Your task to perform on an android device: turn off javascript in the chrome app Image 0: 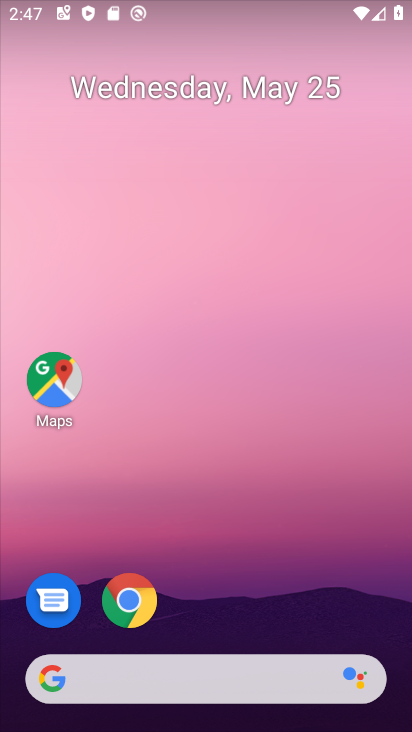
Step 0: click (129, 596)
Your task to perform on an android device: turn off javascript in the chrome app Image 1: 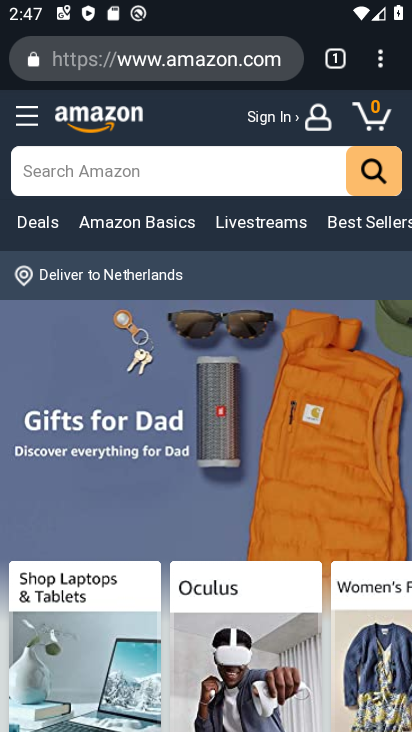
Step 1: click (382, 62)
Your task to perform on an android device: turn off javascript in the chrome app Image 2: 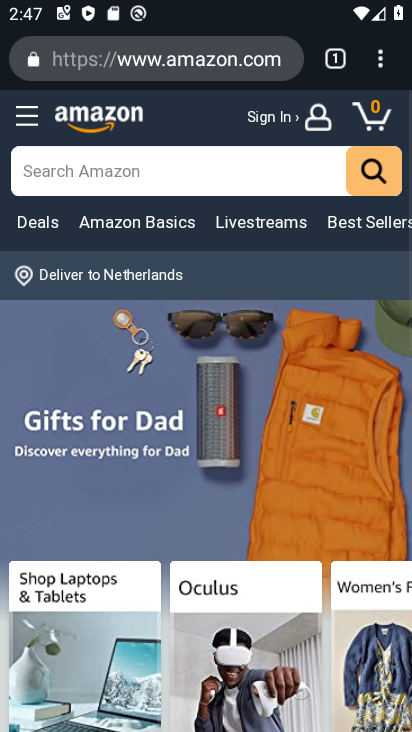
Step 2: click (369, 70)
Your task to perform on an android device: turn off javascript in the chrome app Image 3: 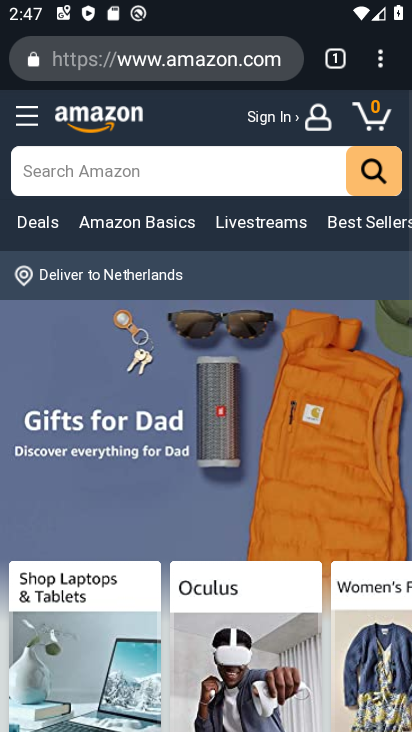
Step 3: click (386, 57)
Your task to perform on an android device: turn off javascript in the chrome app Image 4: 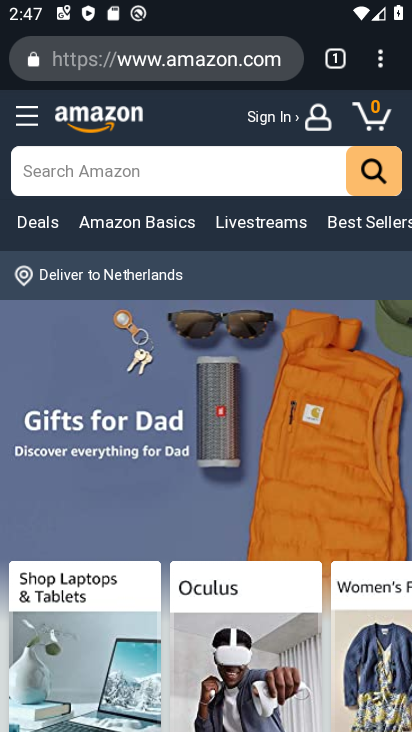
Step 4: click (385, 58)
Your task to perform on an android device: turn off javascript in the chrome app Image 5: 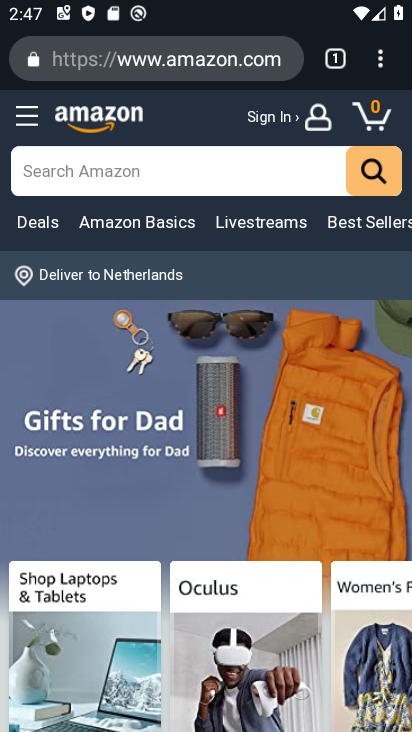
Step 5: click (383, 58)
Your task to perform on an android device: turn off javascript in the chrome app Image 6: 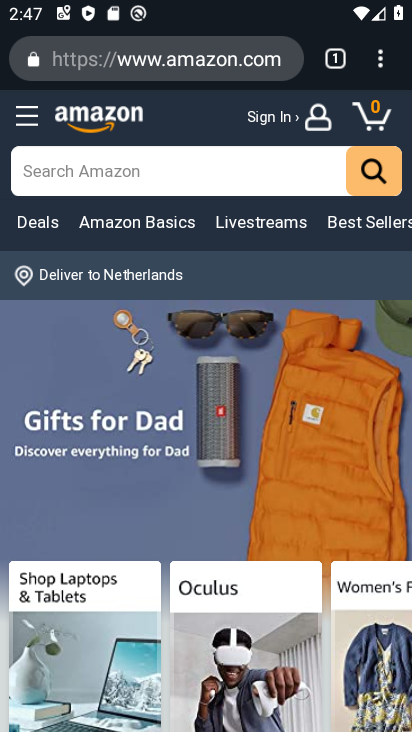
Step 6: click (385, 67)
Your task to perform on an android device: turn off javascript in the chrome app Image 7: 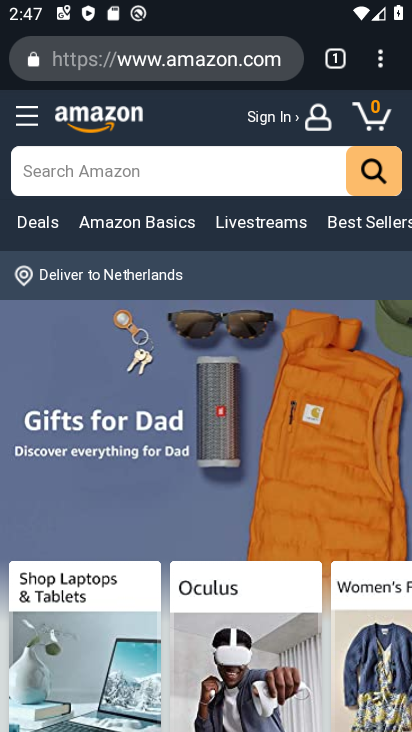
Step 7: click (389, 49)
Your task to perform on an android device: turn off javascript in the chrome app Image 8: 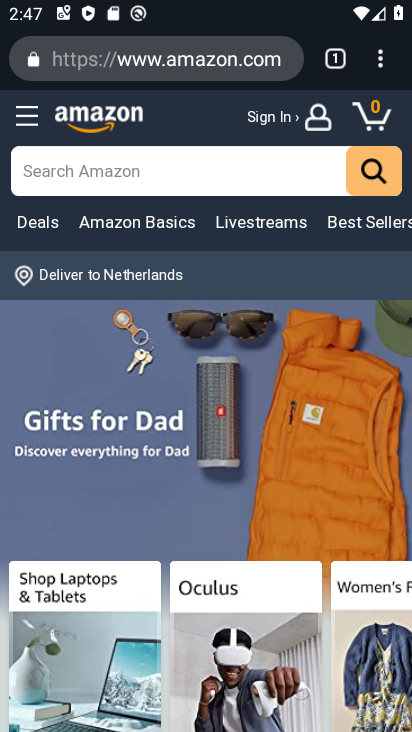
Step 8: click (391, 59)
Your task to perform on an android device: turn off javascript in the chrome app Image 9: 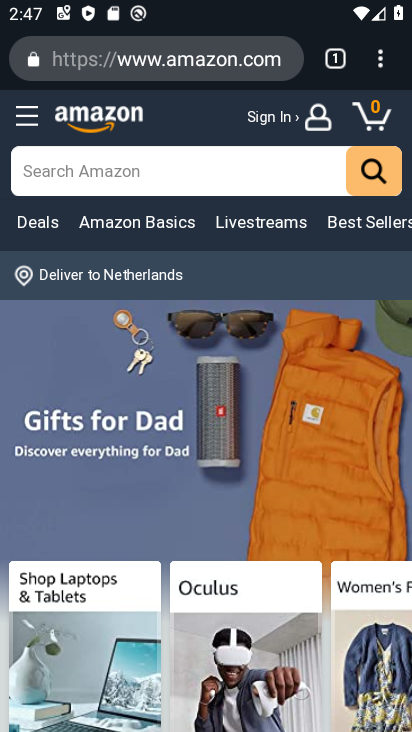
Step 9: click (394, 65)
Your task to perform on an android device: turn off javascript in the chrome app Image 10: 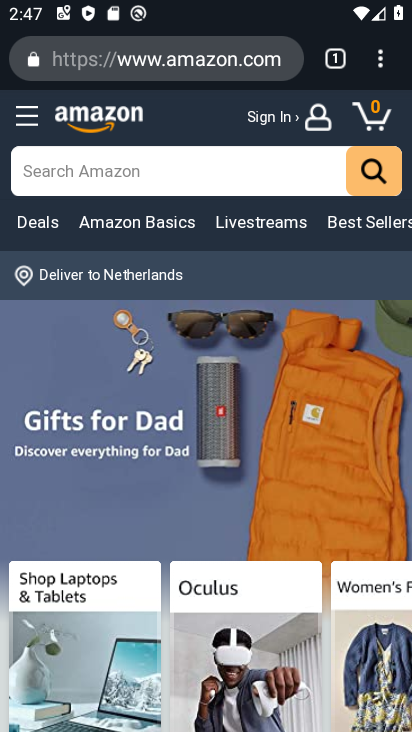
Step 10: click (375, 65)
Your task to perform on an android device: turn off javascript in the chrome app Image 11: 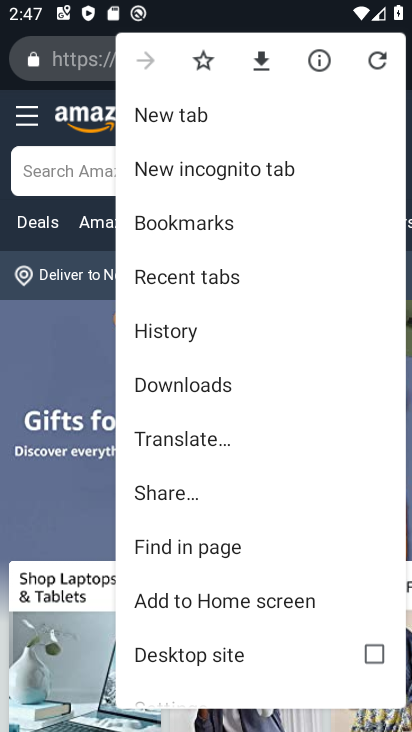
Step 11: drag from (164, 654) to (300, 211)
Your task to perform on an android device: turn off javascript in the chrome app Image 12: 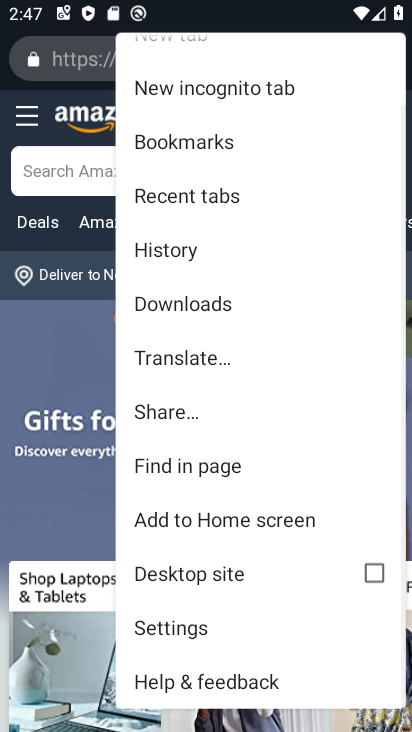
Step 12: click (171, 635)
Your task to perform on an android device: turn off javascript in the chrome app Image 13: 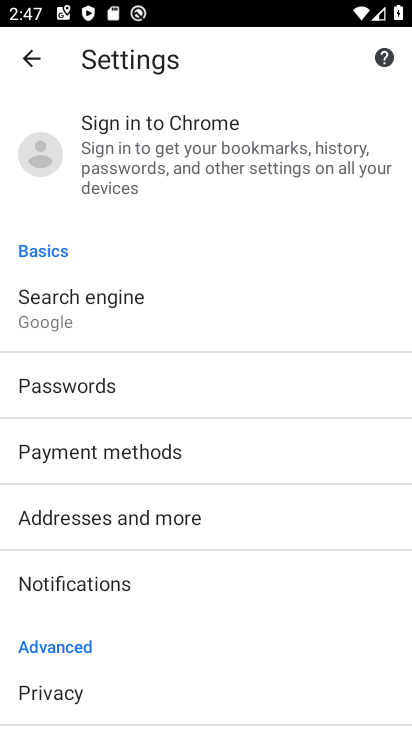
Step 13: drag from (20, 580) to (265, 140)
Your task to perform on an android device: turn off javascript in the chrome app Image 14: 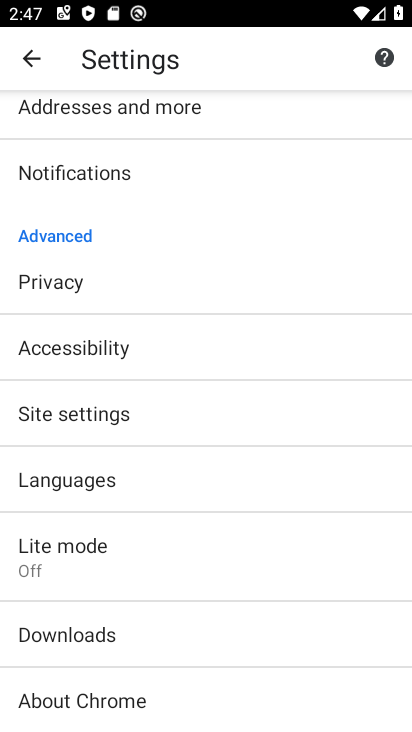
Step 14: click (91, 414)
Your task to perform on an android device: turn off javascript in the chrome app Image 15: 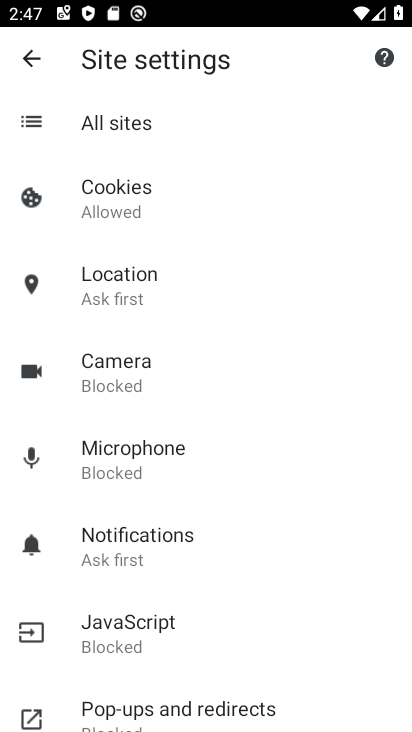
Step 15: click (137, 630)
Your task to perform on an android device: turn off javascript in the chrome app Image 16: 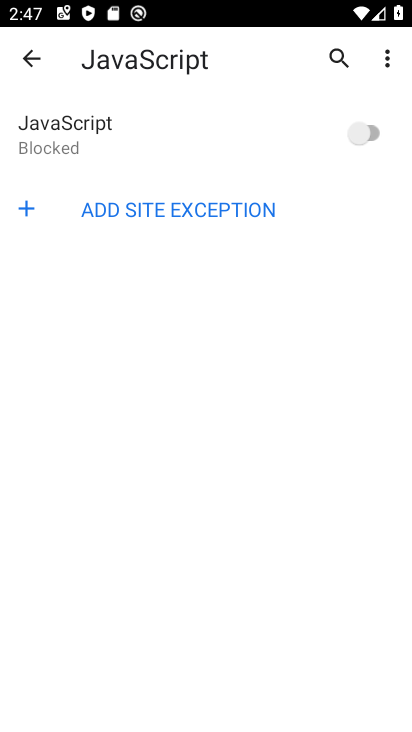
Step 16: task complete